Your task to perform on an android device: turn on notifications settings in the gmail app Image 0: 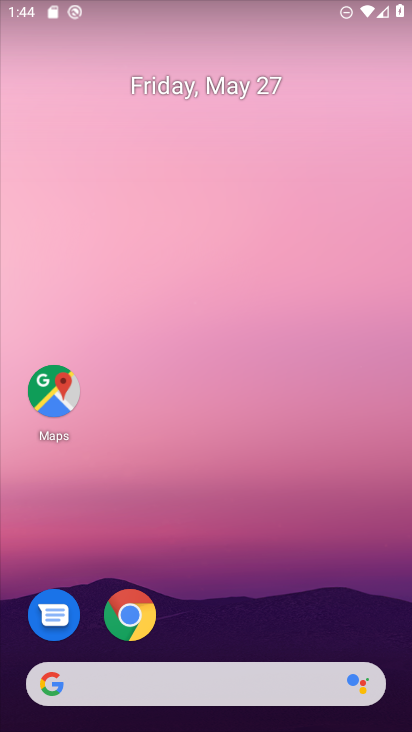
Step 0: drag from (222, 642) to (252, 210)
Your task to perform on an android device: turn on notifications settings in the gmail app Image 1: 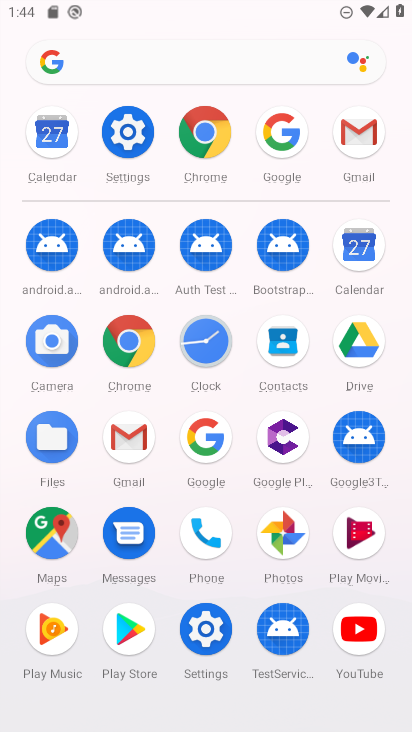
Step 1: click (126, 445)
Your task to perform on an android device: turn on notifications settings in the gmail app Image 2: 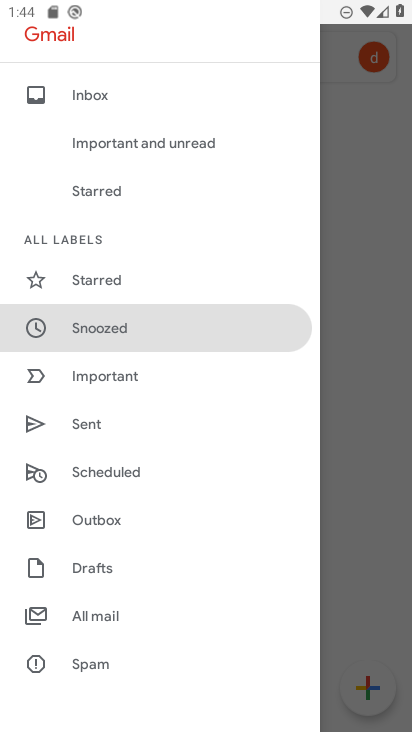
Step 2: drag from (140, 652) to (167, 269)
Your task to perform on an android device: turn on notifications settings in the gmail app Image 3: 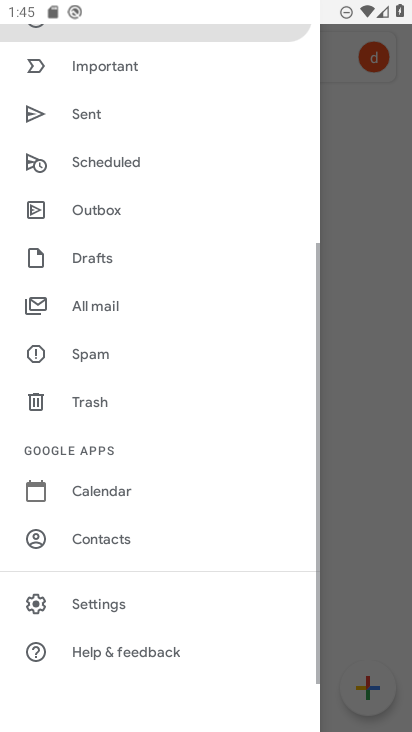
Step 3: click (125, 607)
Your task to perform on an android device: turn on notifications settings in the gmail app Image 4: 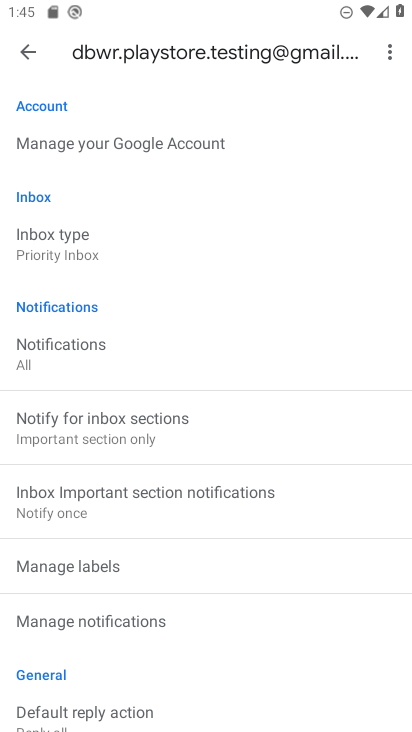
Step 4: click (111, 621)
Your task to perform on an android device: turn on notifications settings in the gmail app Image 5: 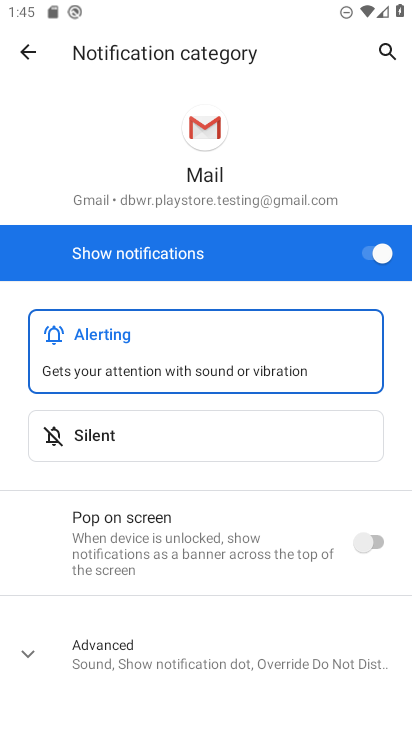
Step 5: task complete